Your task to perform on an android device: delete browsing data in the chrome app Image 0: 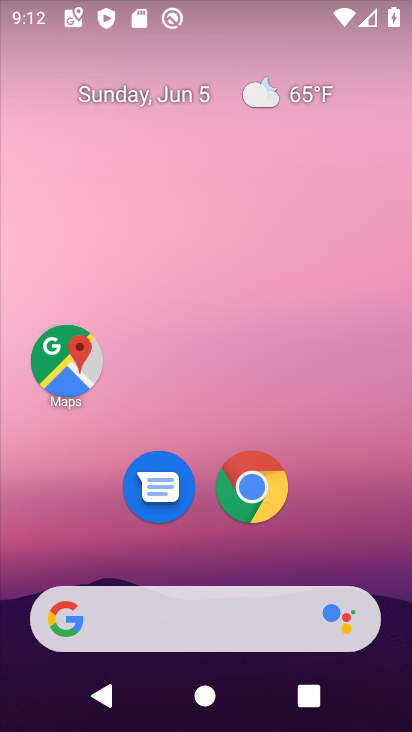
Step 0: click (272, 501)
Your task to perform on an android device: delete browsing data in the chrome app Image 1: 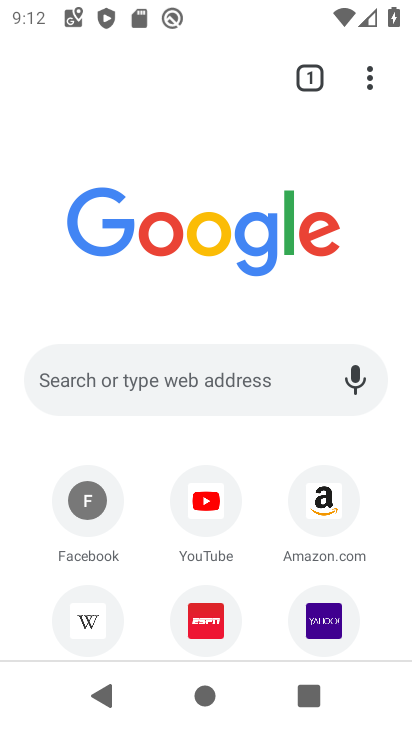
Step 1: drag from (383, 79) to (239, 563)
Your task to perform on an android device: delete browsing data in the chrome app Image 2: 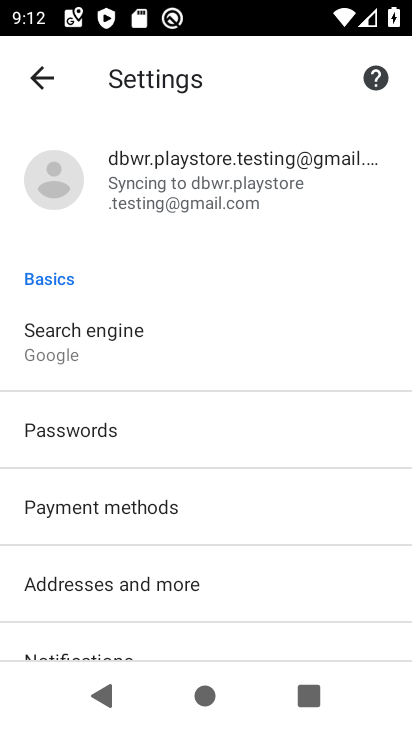
Step 2: drag from (193, 638) to (302, 277)
Your task to perform on an android device: delete browsing data in the chrome app Image 3: 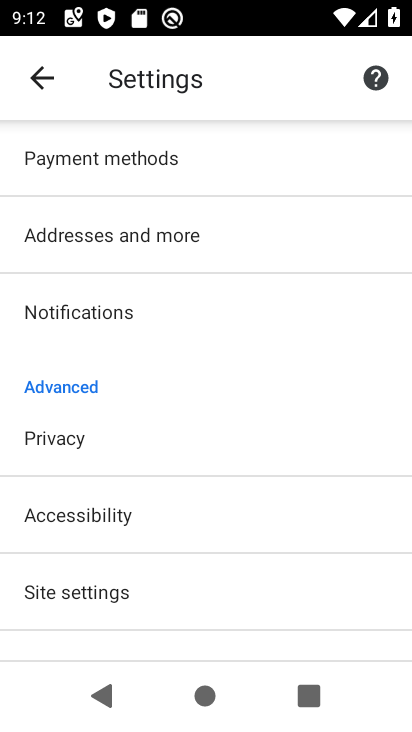
Step 3: click (191, 440)
Your task to perform on an android device: delete browsing data in the chrome app Image 4: 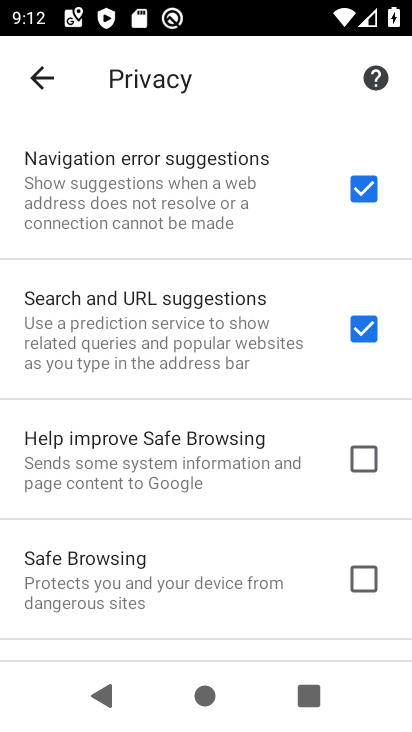
Step 4: drag from (145, 578) to (261, 127)
Your task to perform on an android device: delete browsing data in the chrome app Image 5: 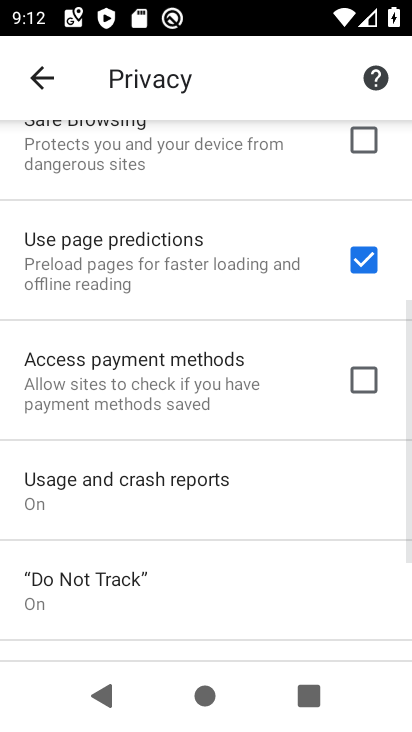
Step 5: drag from (168, 574) to (253, 208)
Your task to perform on an android device: delete browsing data in the chrome app Image 6: 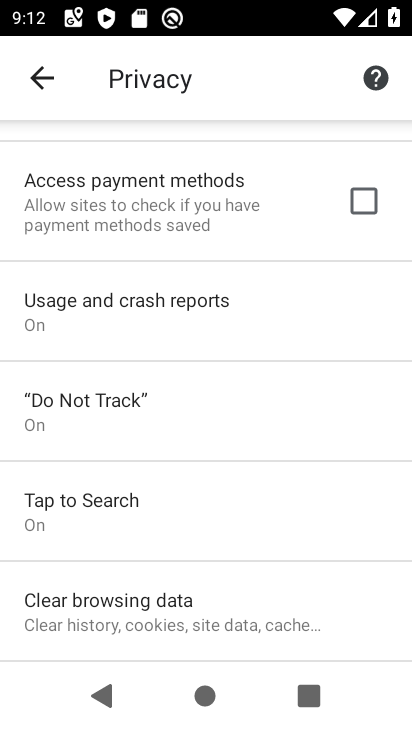
Step 6: click (212, 622)
Your task to perform on an android device: delete browsing data in the chrome app Image 7: 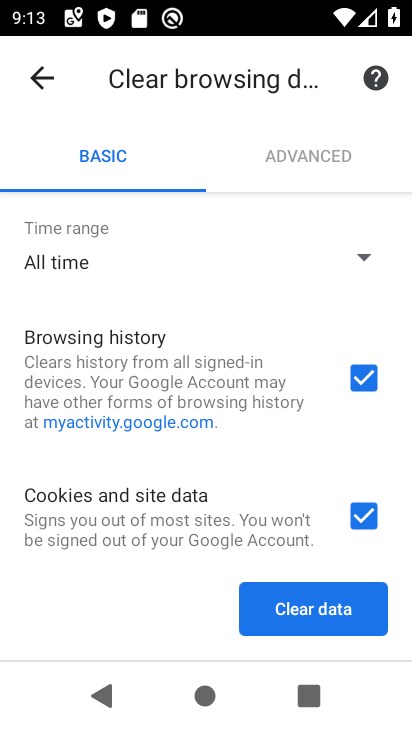
Step 7: click (320, 620)
Your task to perform on an android device: delete browsing data in the chrome app Image 8: 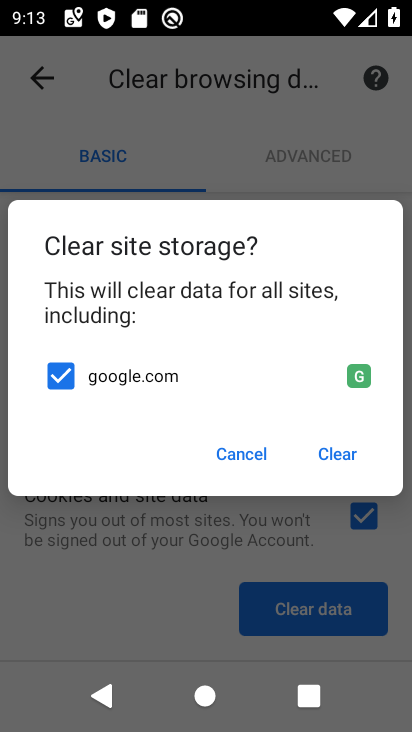
Step 8: click (356, 462)
Your task to perform on an android device: delete browsing data in the chrome app Image 9: 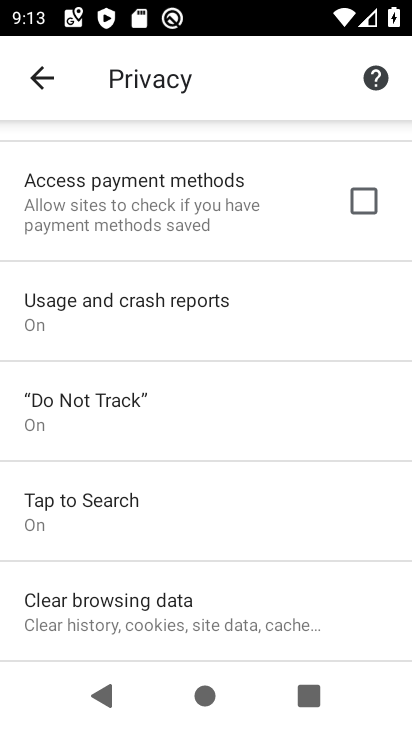
Step 9: task complete